Your task to perform on an android device: toggle improve location accuracy Image 0: 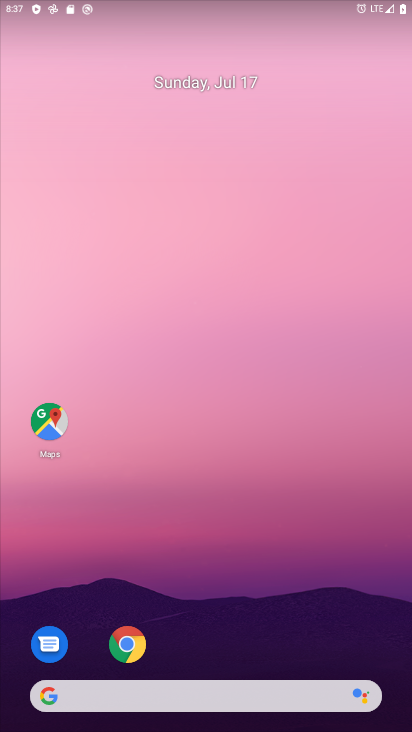
Step 0: drag from (218, 702) to (242, 151)
Your task to perform on an android device: toggle improve location accuracy Image 1: 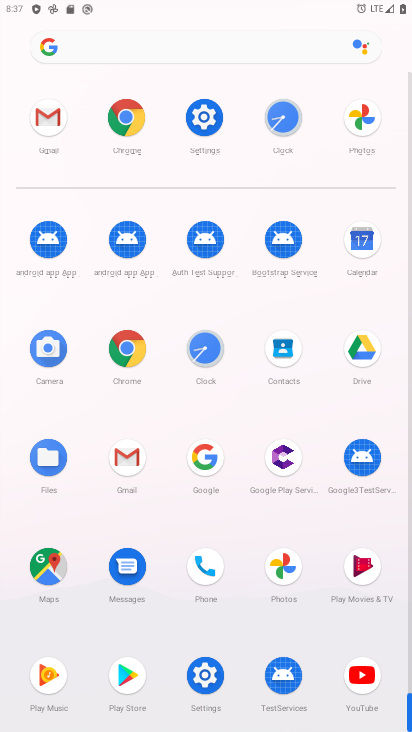
Step 1: click (195, 121)
Your task to perform on an android device: toggle improve location accuracy Image 2: 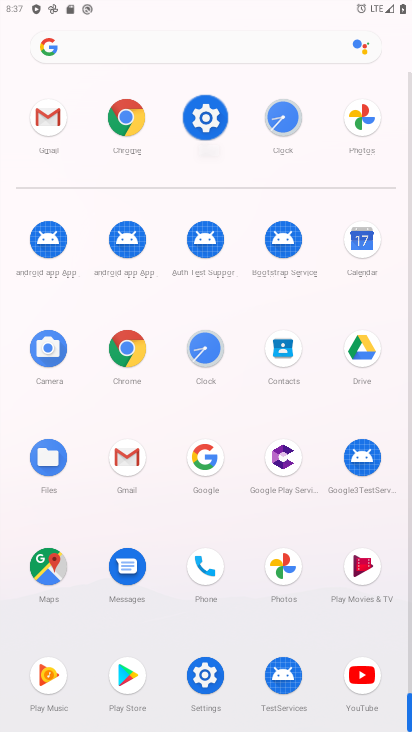
Step 2: click (220, 106)
Your task to perform on an android device: toggle improve location accuracy Image 3: 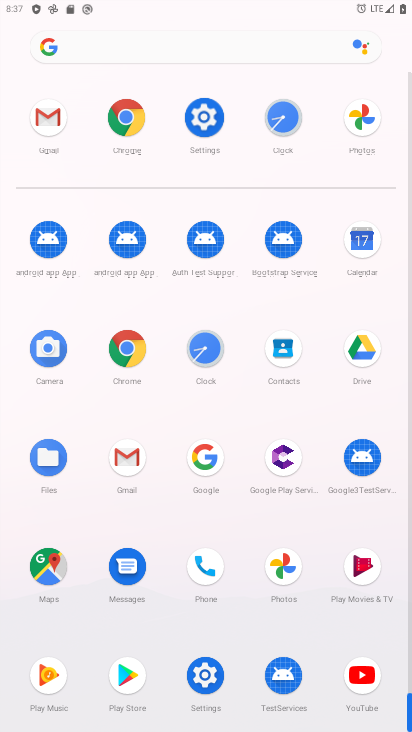
Step 3: click (205, 109)
Your task to perform on an android device: toggle improve location accuracy Image 4: 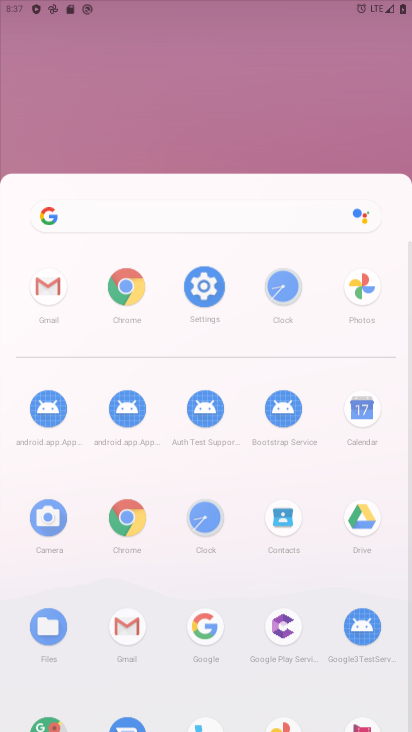
Step 4: click (204, 113)
Your task to perform on an android device: toggle improve location accuracy Image 5: 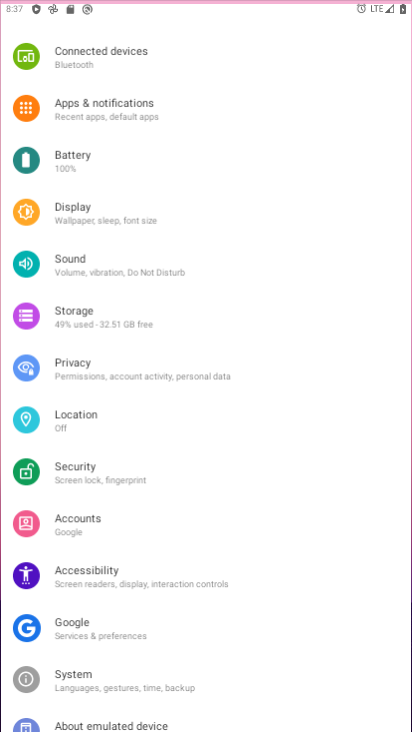
Step 5: click (203, 116)
Your task to perform on an android device: toggle improve location accuracy Image 6: 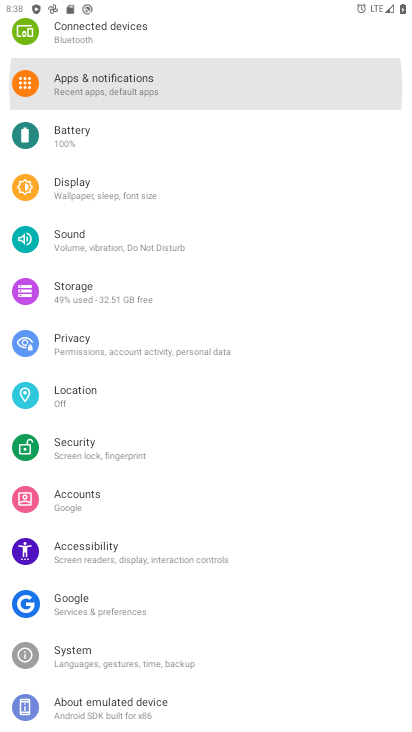
Step 6: click (203, 116)
Your task to perform on an android device: toggle improve location accuracy Image 7: 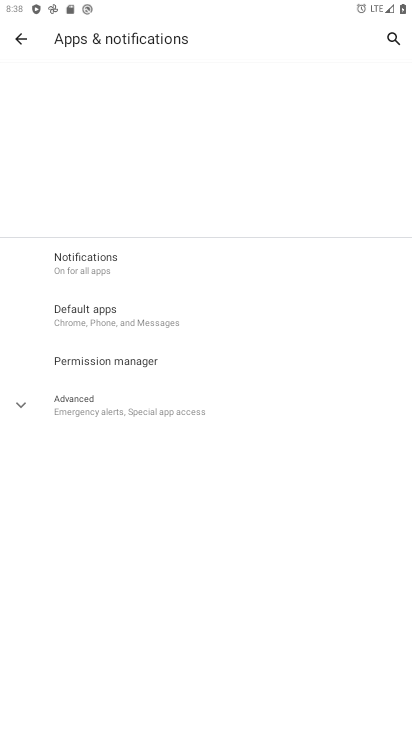
Step 7: click (79, 395)
Your task to perform on an android device: toggle improve location accuracy Image 8: 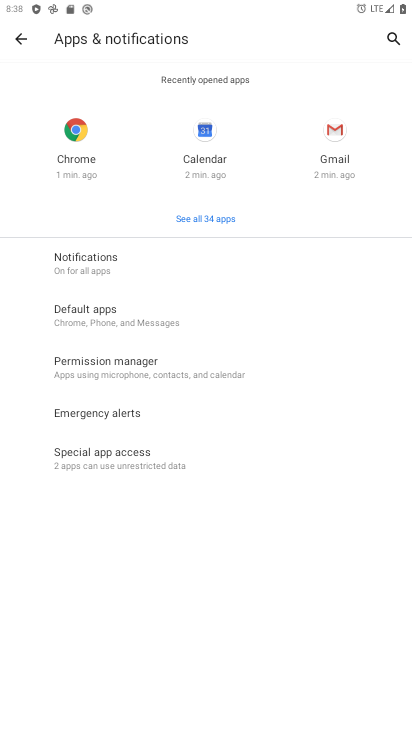
Step 8: click (23, 38)
Your task to perform on an android device: toggle improve location accuracy Image 9: 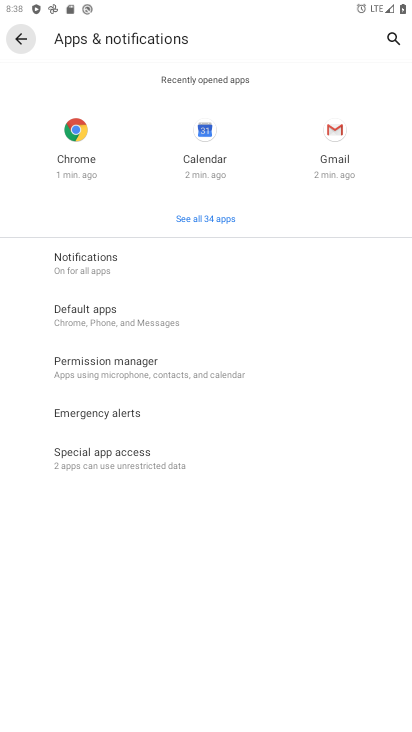
Step 9: click (19, 37)
Your task to perform on an android device: toggle improve location accuracy Image 10: 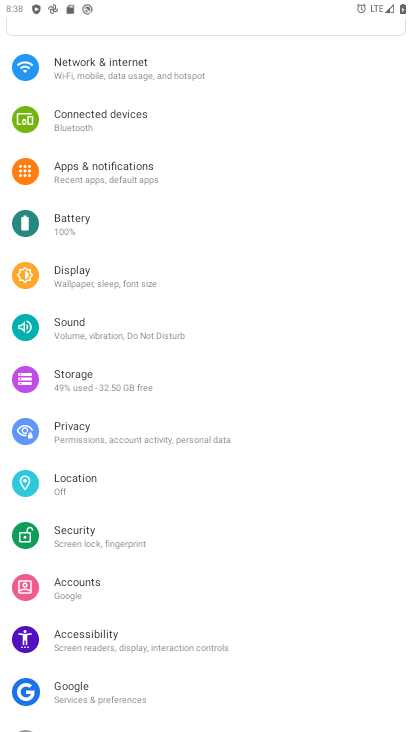
Step 10: click (73, 491)
Your task to perform on an android device: toggle improve location accuracy Image 11: 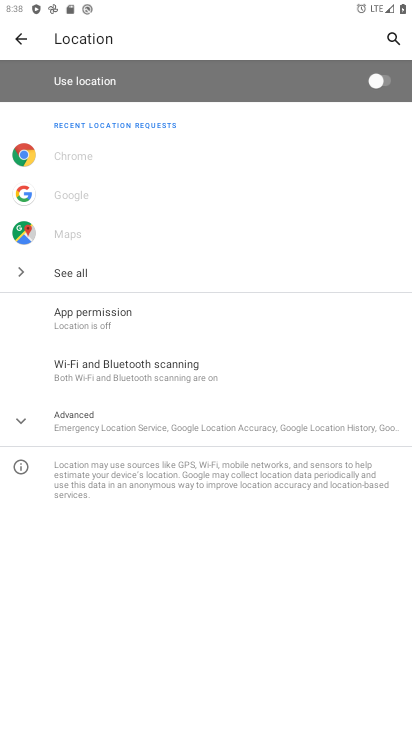
Step 11: click (79, 415)
Your task to perform on an android device: toggle improve location accuracy Image 12: 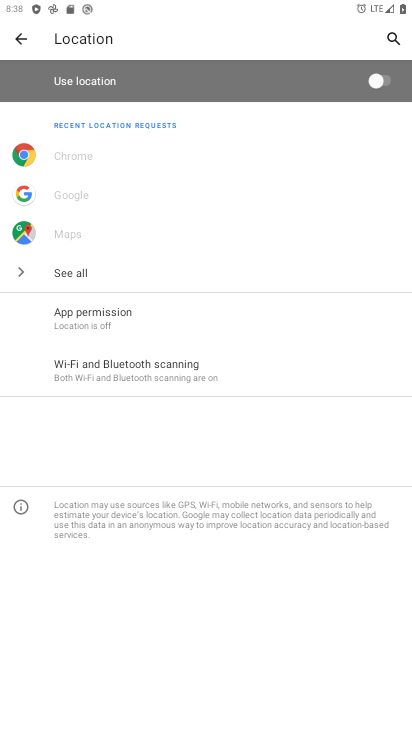
Step 12: click (78, 420)
Your task to perform on an android device: toggle improve location accuracy Image 13: 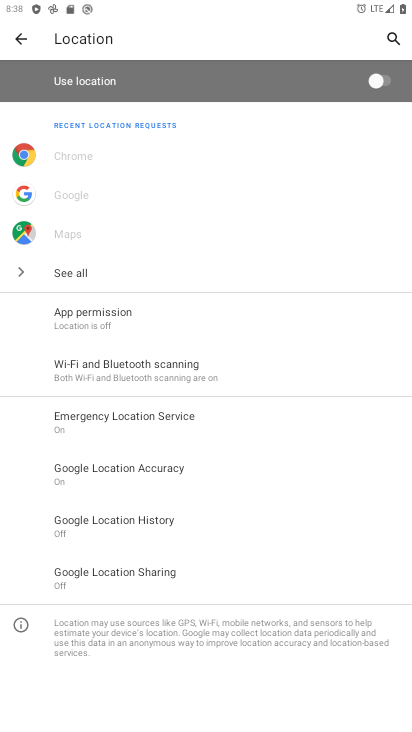
Step 13: click (79, 421)
Your task to perform on an android device: toggle improve location accuracy Image 14: 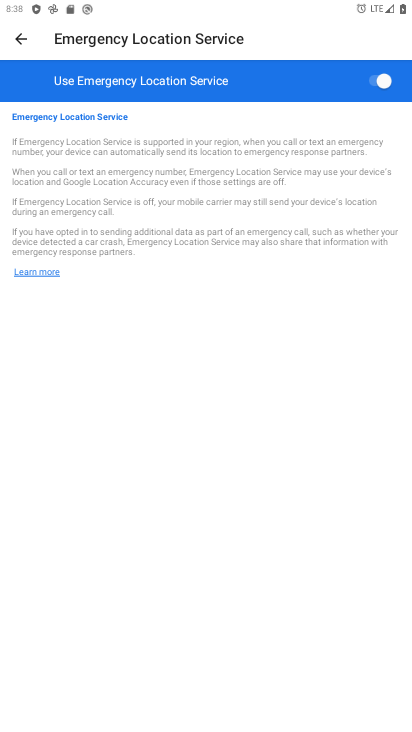
Step 14: click (20, 44)
Your task to perform on an android device: toggle improve location accuracy Image 15: 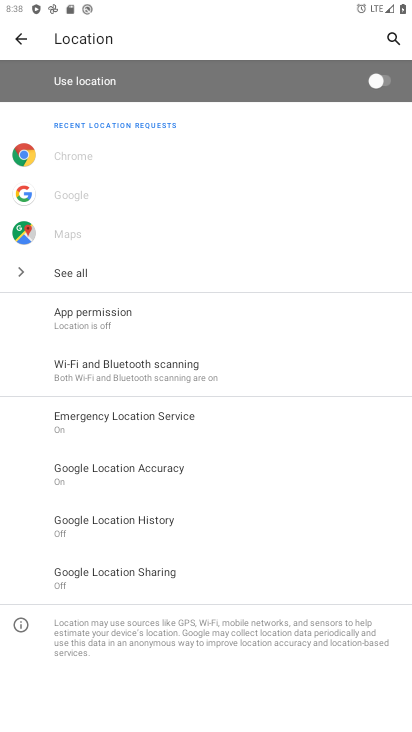
Step 15: click (129, 474)
Your task to perform on an android device: toggle improve location accuracy Image 16: 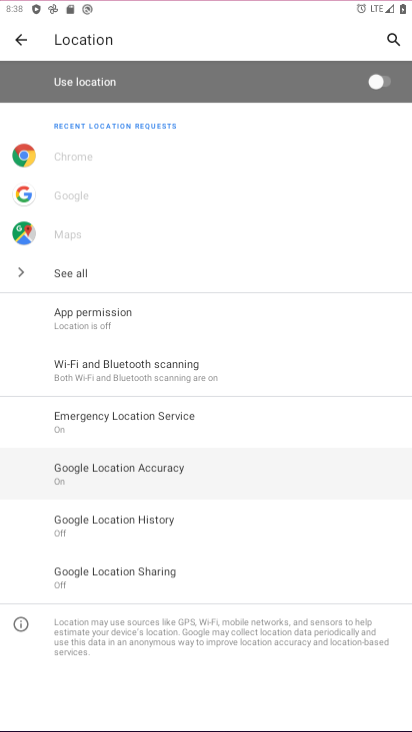
Step 16: click (127, 475)
Your task to perform on an android device: toggle improve location accuracy Image 17: 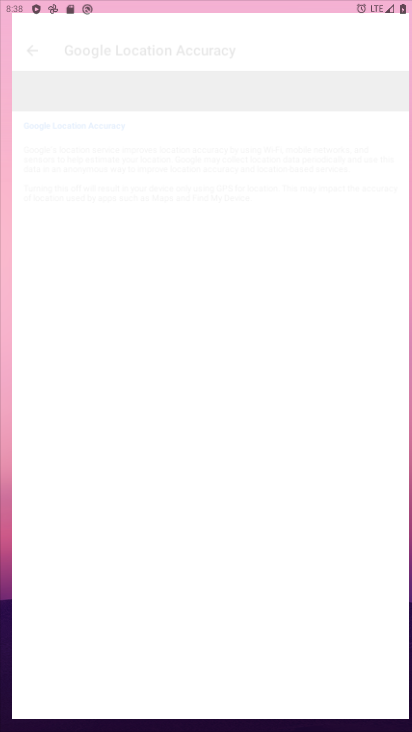
Step 17: click (127, 476)
Your task to perform on an android device: toggle improve location accuracy Image 18: 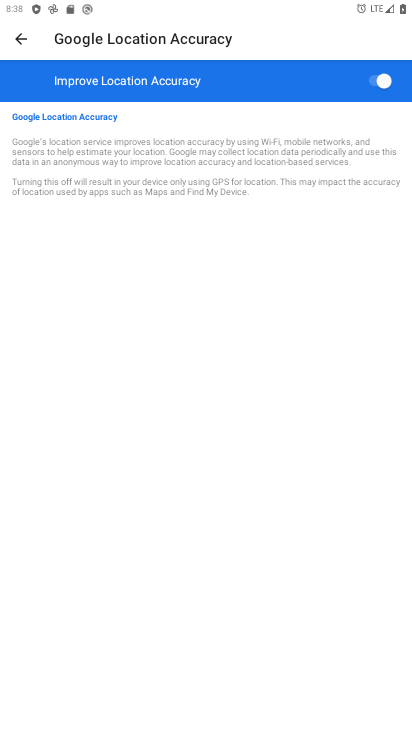
Step 18: click (126, 480)
Your task to perform on an android device: toggle improve location accuracy Image 19: 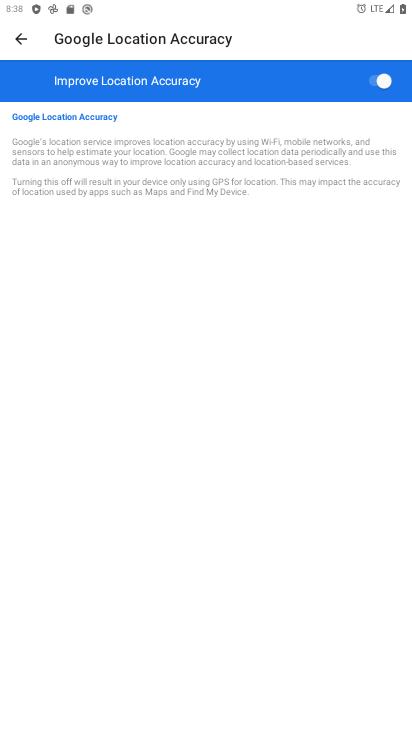
Step 19: task complete